Your task to perform on an android device: see sites visited before in the chrome app Image 0: 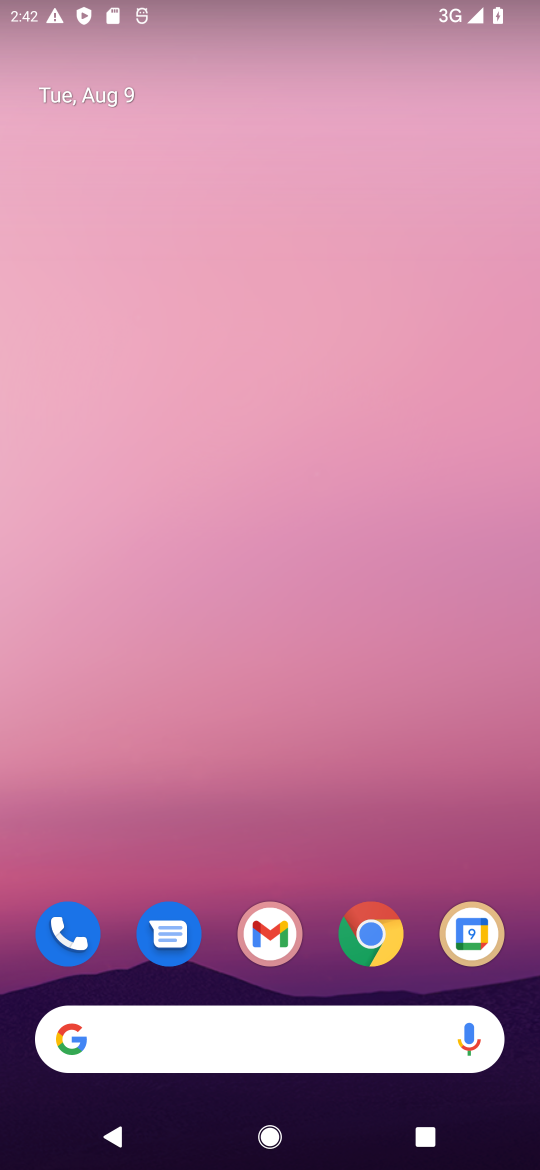
Step 0: click (379, 957)
Your task to perform on an android device: see sites visited before in the chrome app Image 1: 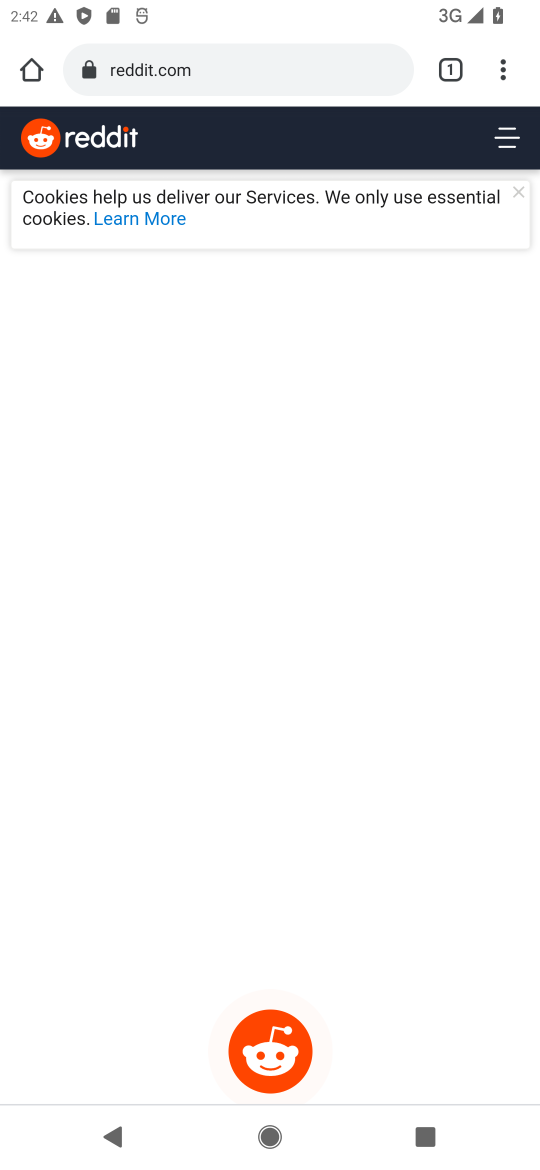
Step 1: task complete